Your task to perform on an android device: Open eBay Image 0: 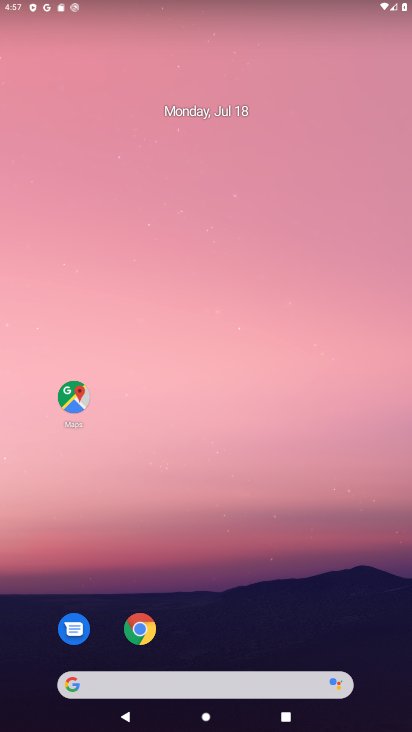
Step 0: drag from (309, 577) to (314, 0)
Your task to perform on an android device: Open eBay Image 1: 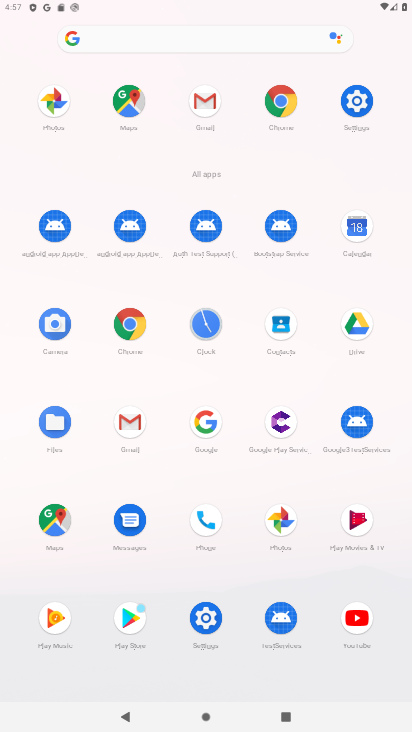
Step 1: click (285, 106)
Your task to perform on an android device: Open eBay Image 2: 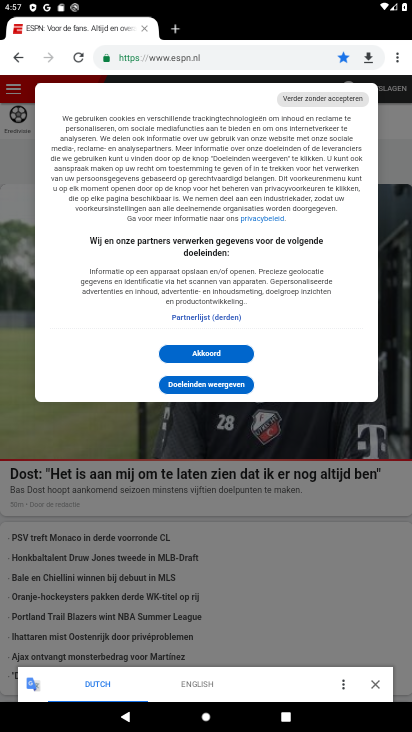
Step 2: click (298, 55)
Your task to perform on an android device: Open eBay Image 3: 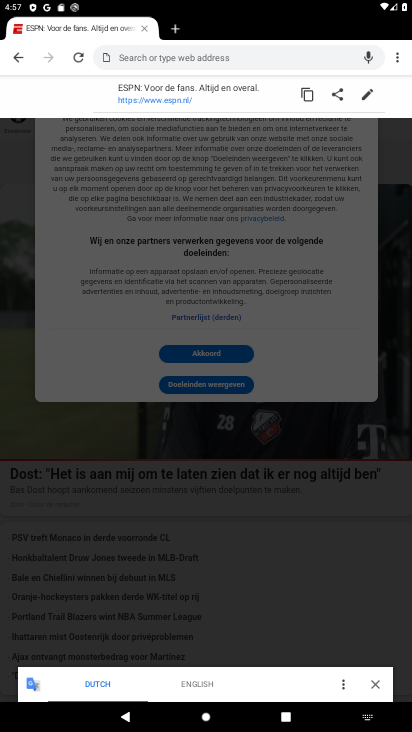
Step 3: type "ebay"
Your task to perform on an android device: Open eBay Image 4: 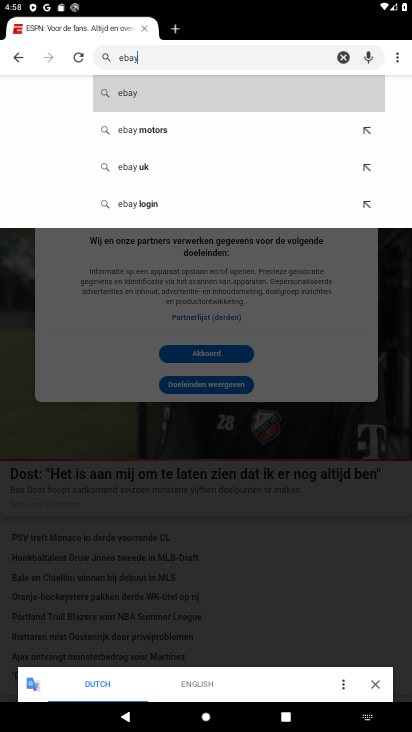
Step 4: type "x"
Your task to perform on an android device: Open eBay Image 5: 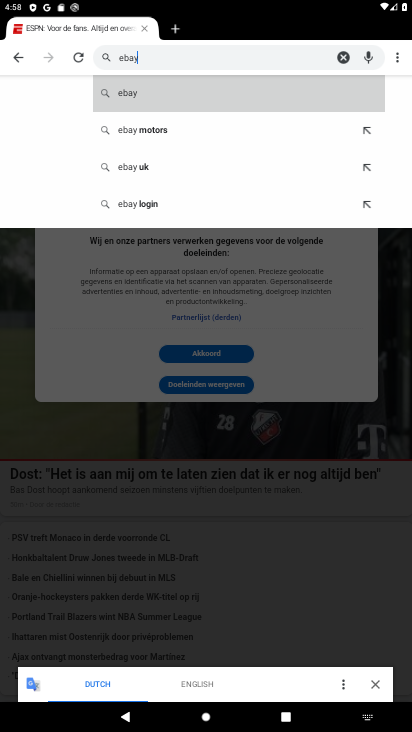
Step 5: click (132, 92)
Your task to perform on an android device: Open eBay Image 6: 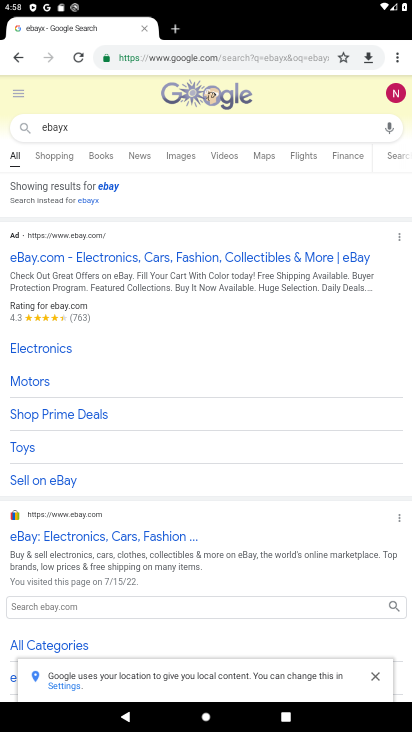
Step 6: click (77, 534)
Your task to perform on an android device: Open eBay Image 7: 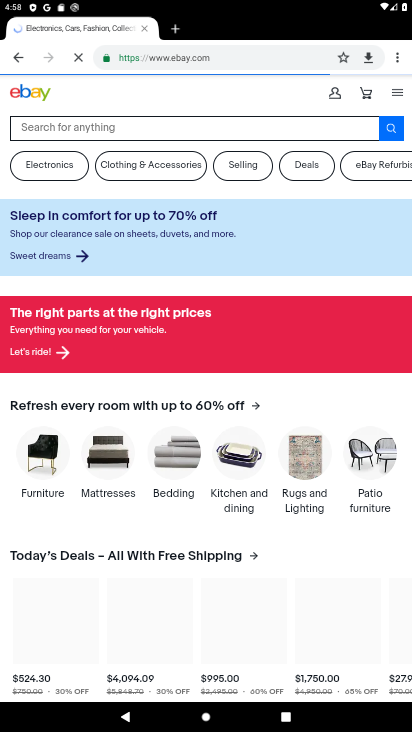
Step 7: task complete